Your task to perform on an android device: open app "PlayWell" Image 0: 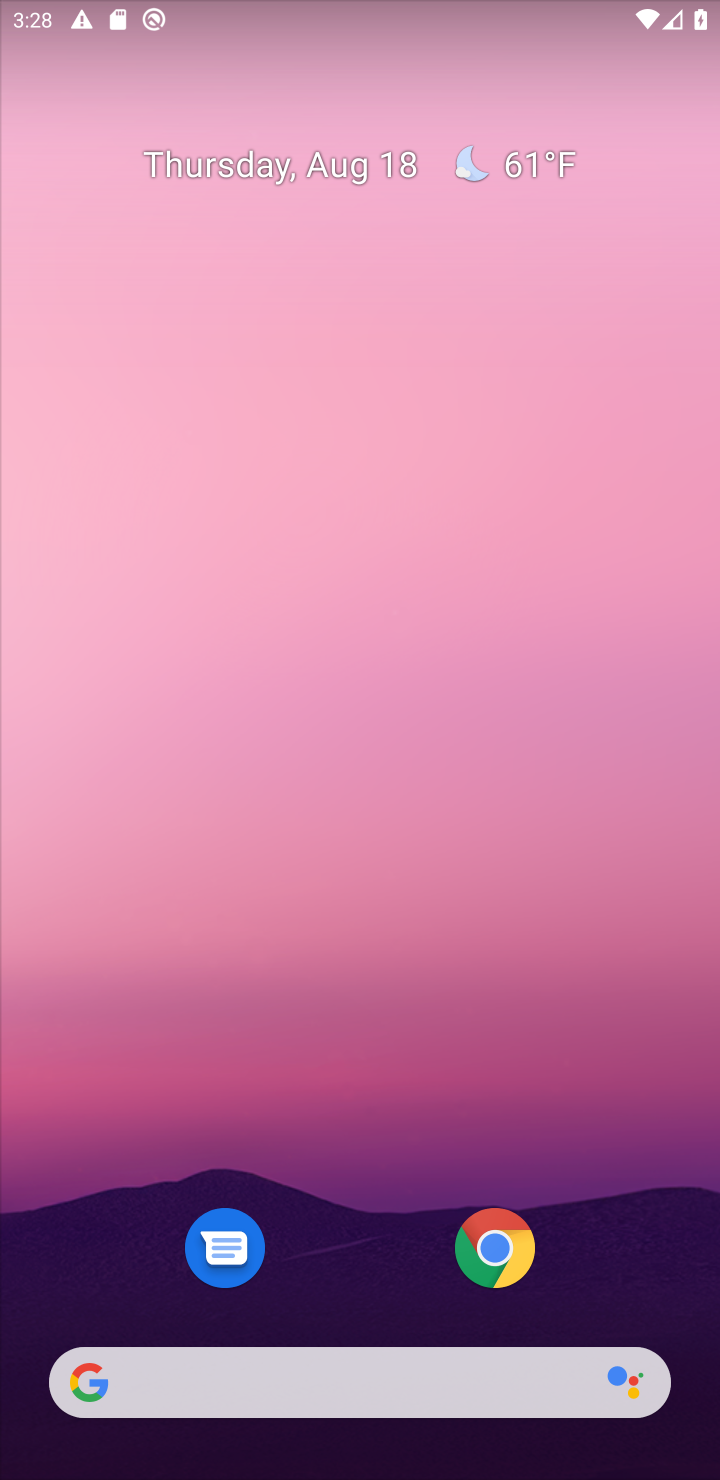
Step 0: drag from (395, 1294) to (373, 355)
Your task to perform on an android device: open app "PlayWell" Image 1: 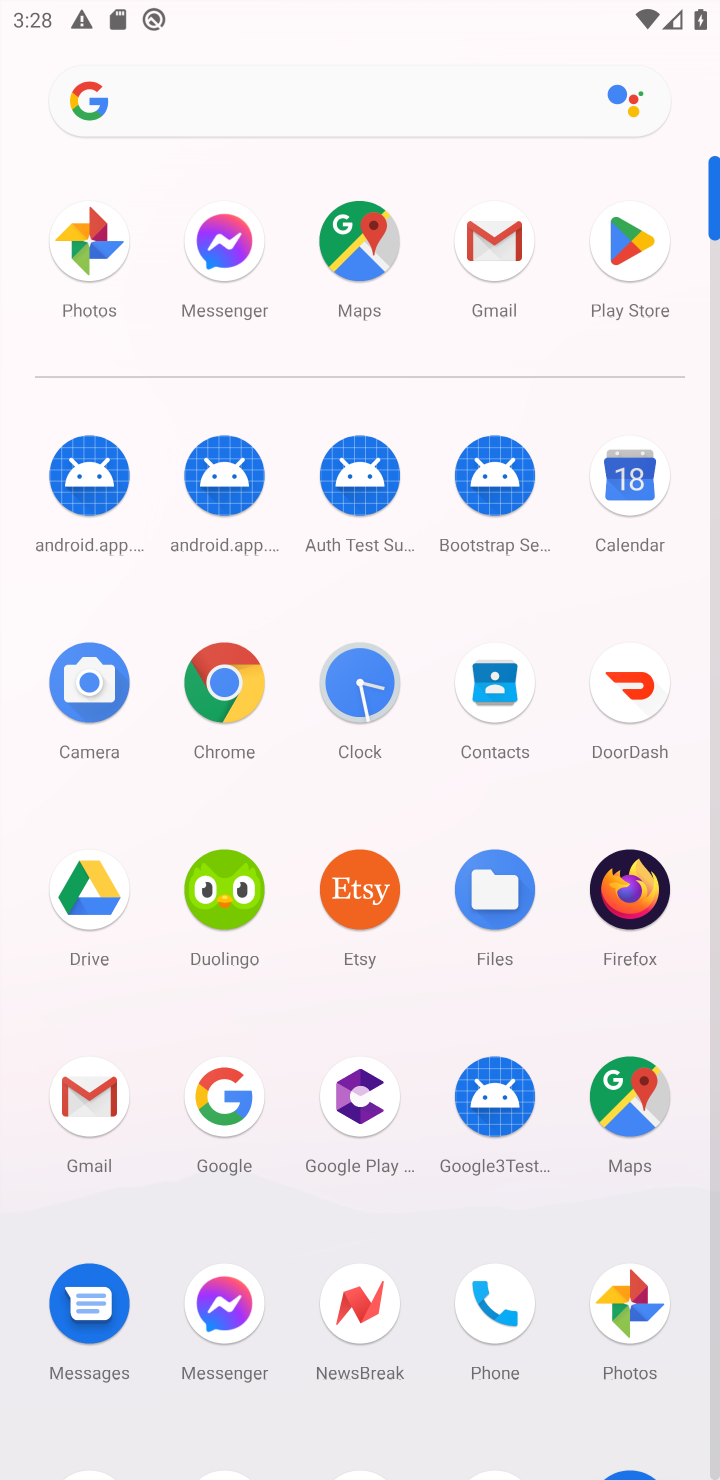
Step 1: click (623, 239)
Your task to perform on an android device: open app "PlayWell" Image 2: 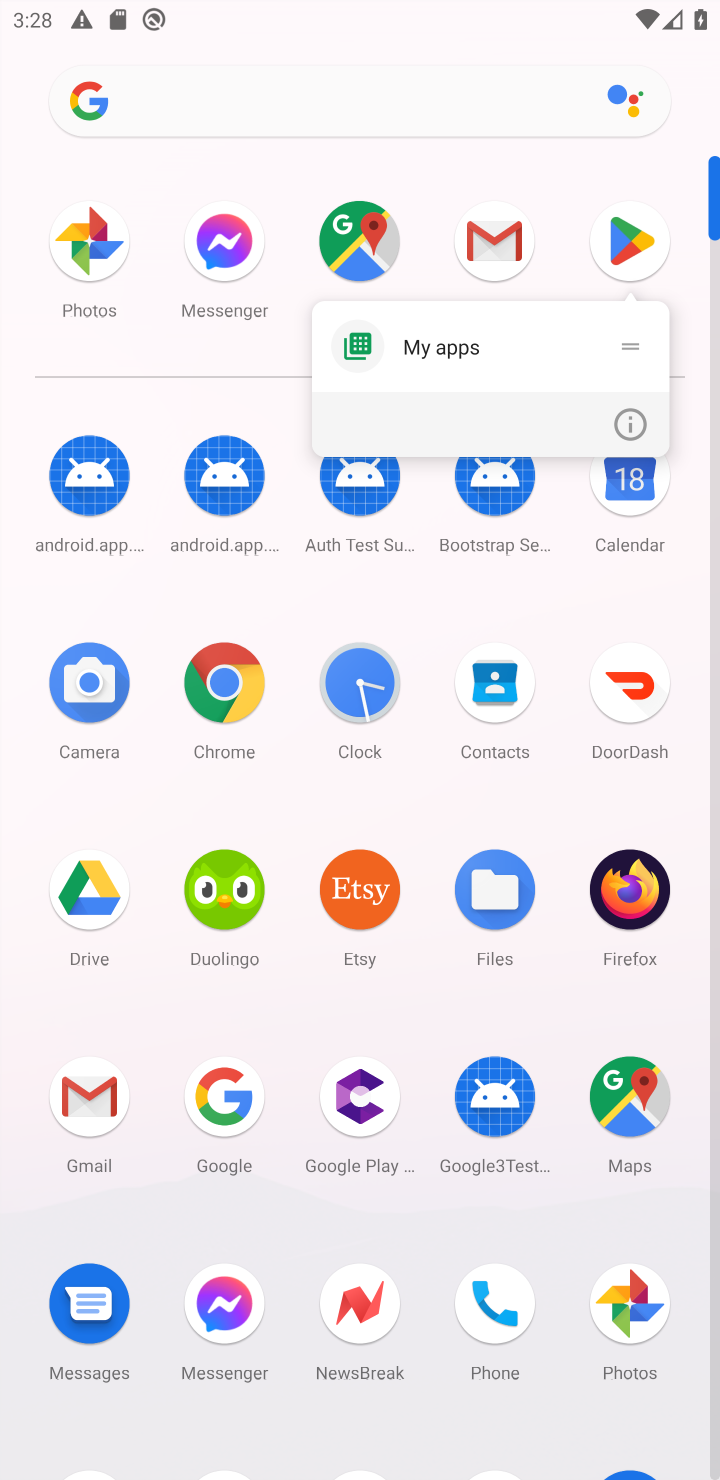
Step 2: click (623, 239)
Your task to perform on an android device: open app "PlayWell" Image 3: 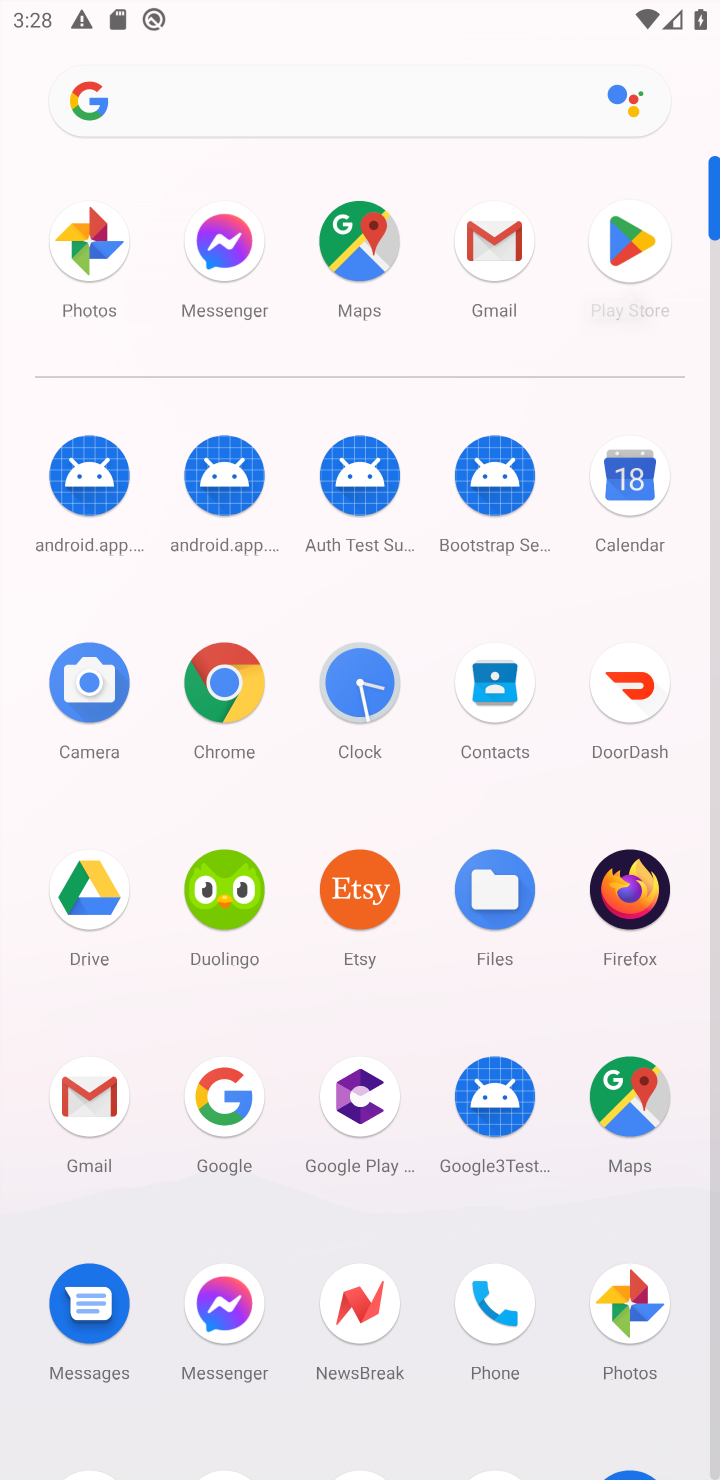
Step 3: click (613, 254)
Your task to perform on an android device: open app "PlayWell" Image 4: 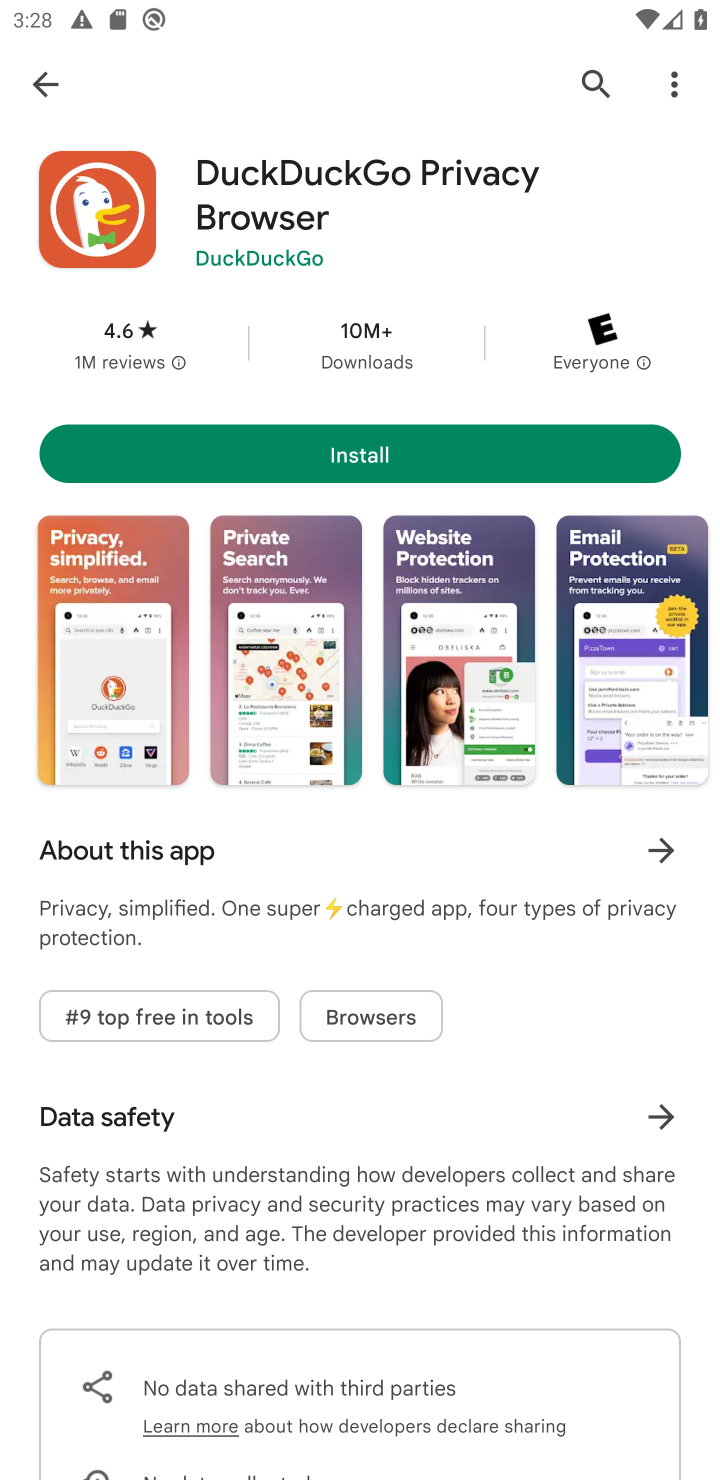
Step 4: click (591, 85)
Your task to perform on an android device: open app "PlayWell" Image 5: 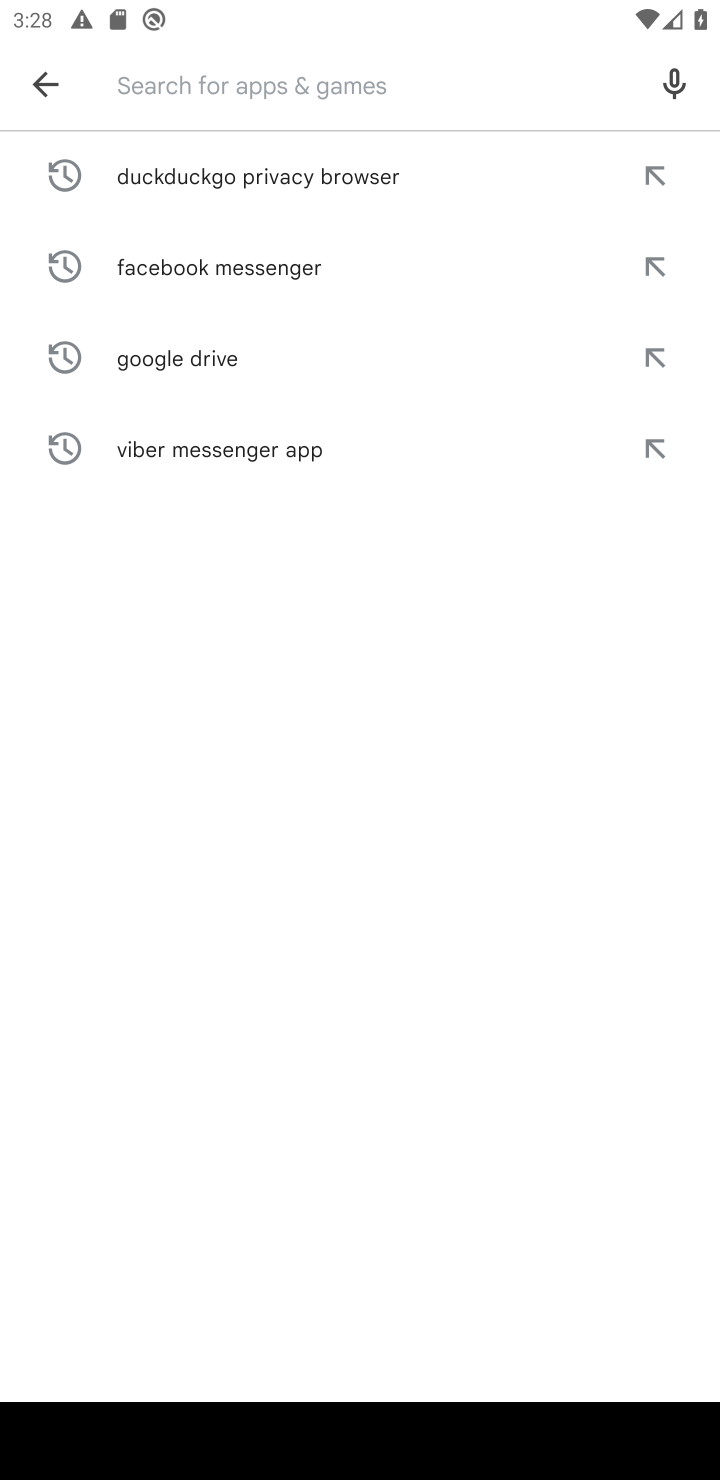
Step 5: type "PlayWell"
Your task to perform on an android device: open app "PlayWell" Image 6: 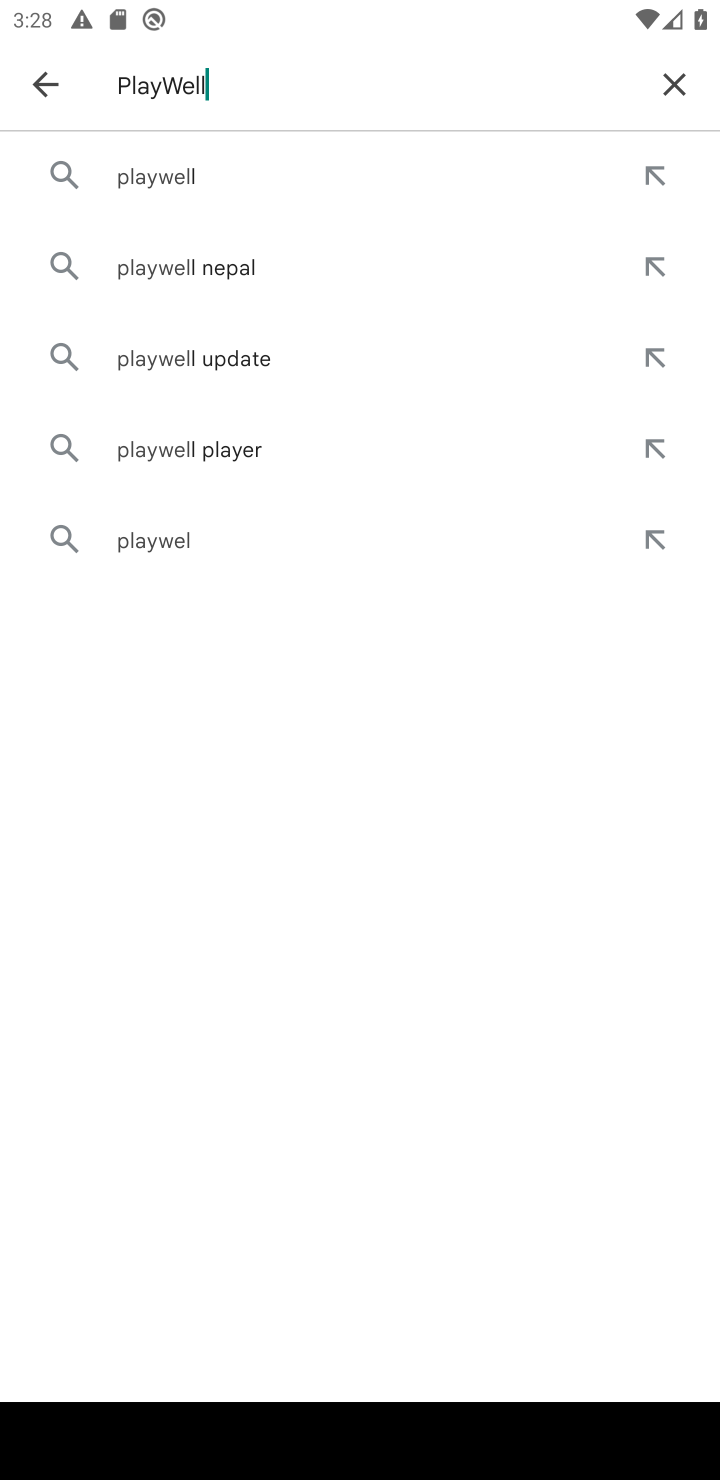
Step 6: type ""
Your task to perform on an android device: open app "PlayWell" Image 7: 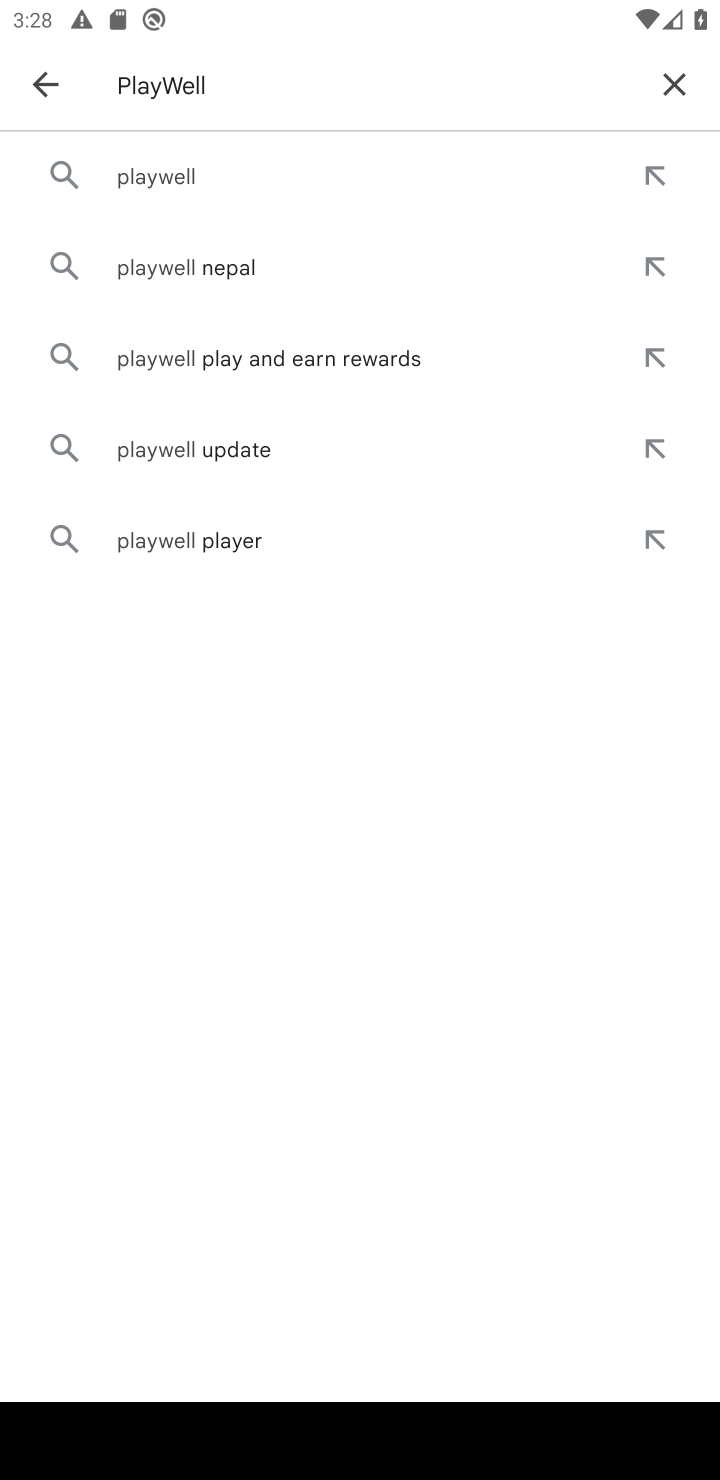
Step 7: click (140, 177)
Your task to perform on an android device: open app "PlayWell" Image 8: 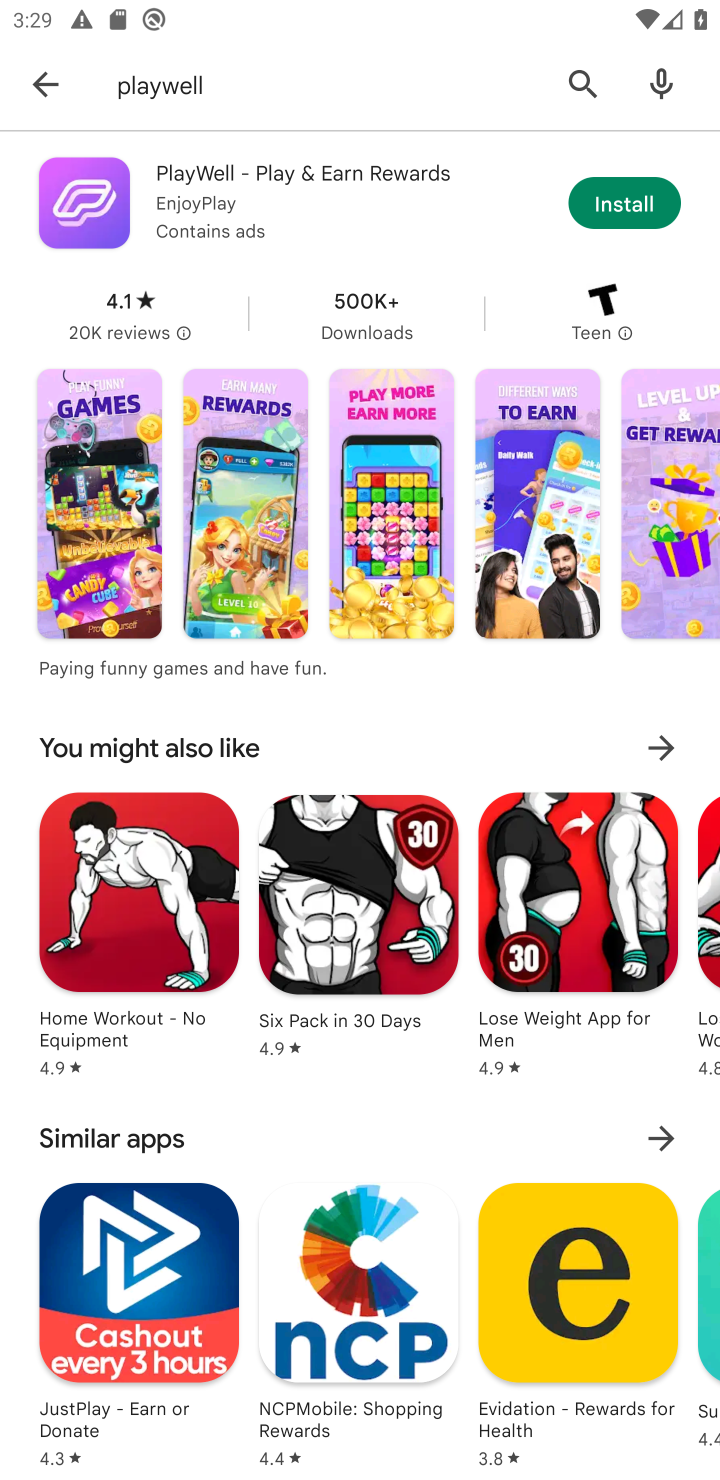
Step 8: task complete